Your task to perform on an android device: Open Chrome and go to the settings page Image 0: 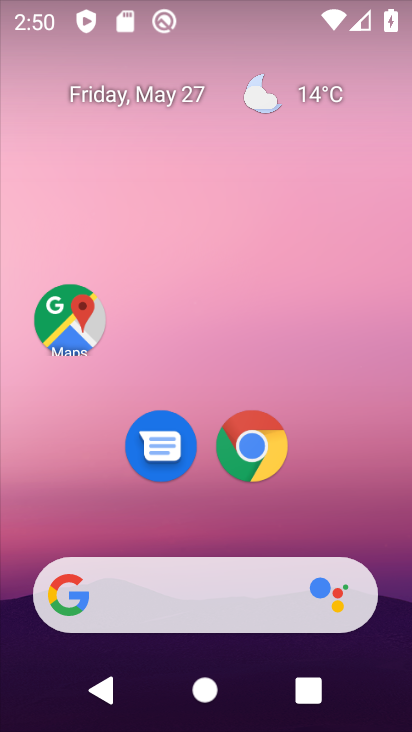
Step 0: press home button
Your task to perform on an android device: Open Chrome and go to the settings page Image 1: 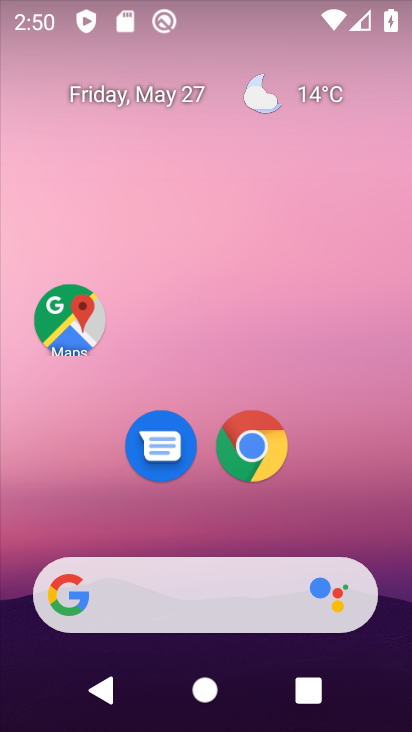
Step 1: click (252, 460)
Your task to perform on an android device: Open Chrome and go to the settings page Image 2: 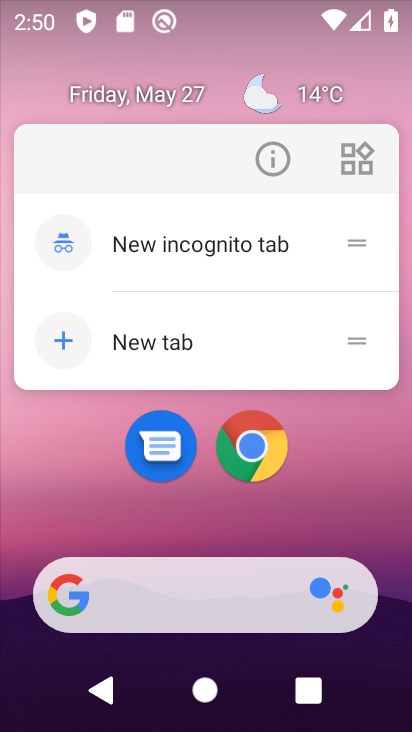
Step 2: click (255, 445)
Your task to perform on an android device: Open Chrome and go to the settings page Image 3: 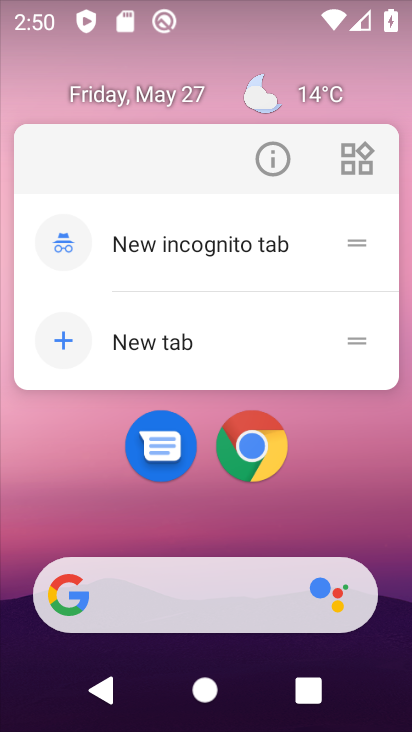
Step 3: click (248, 458)
Your task to perform on an android device: Open Chrome and go to the settings page Image 4: 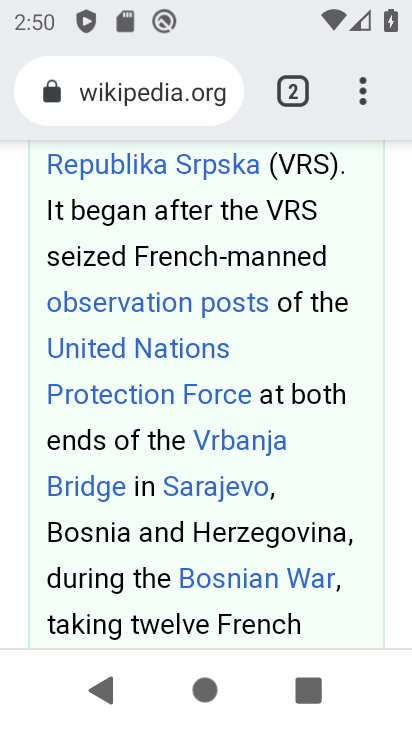
Step 4: task complete